Your task to perform on an android device: turn off data saver in the chrome app Image 0: 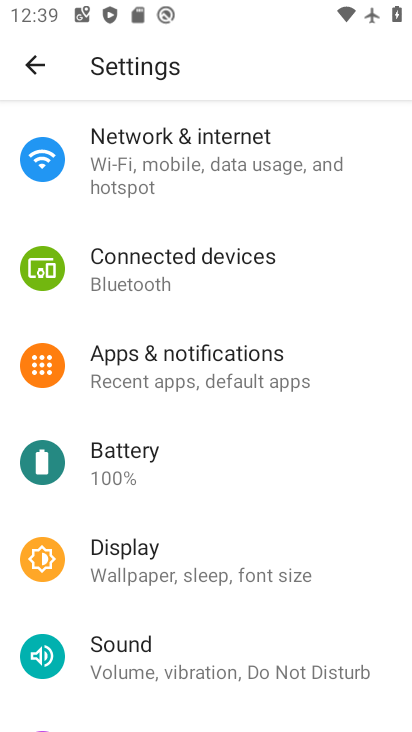
Step 0: press home button
Your task to perform on an android device: turn off data saver in the chrome app Image 1: 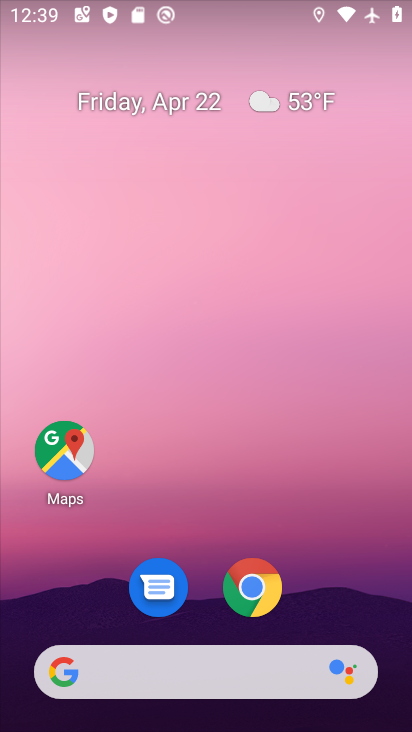
Step 1: drag from (167, 673) to (304, 174)
Your task to perform on an android device: turn off data saver in the chrome app Image 2: 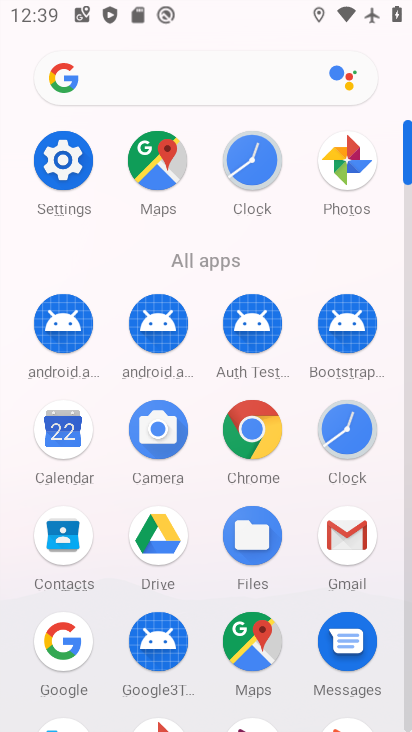
Step 2: click (246, 451)
Your task to perform on an android device: turn off data saver in the chrome app Image 3: 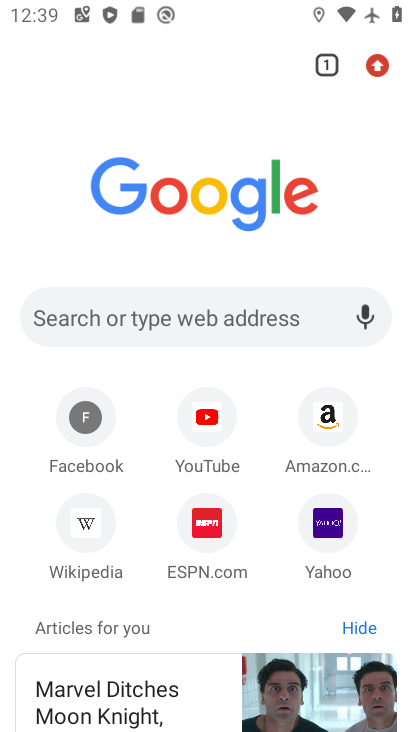
Step 3: click (378, 87)
Your task to perform on an android device: turn off data saver in the chrome app Image 4: 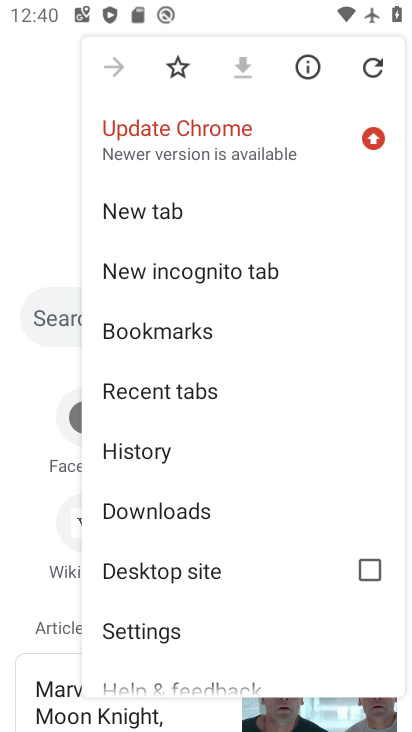
Step 4: drag from (239, 568) to (355, 294)
Your task to perform on an android device: turn off data saver in the chrome app Image 5: 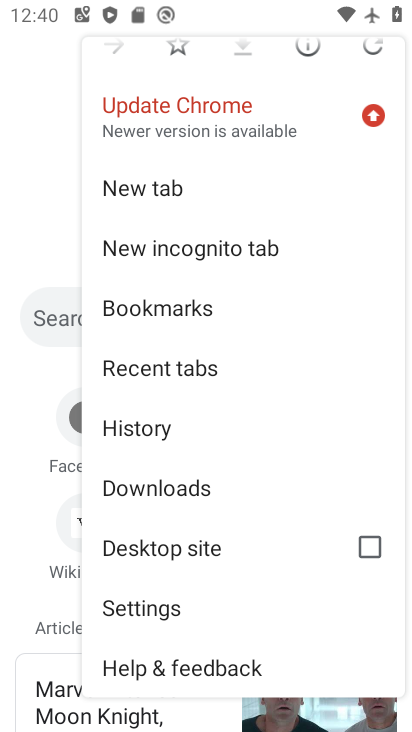
Step 5: click (169, 610)
Your task to perform on an android device: turn off data saver in the chrome app Image 6: 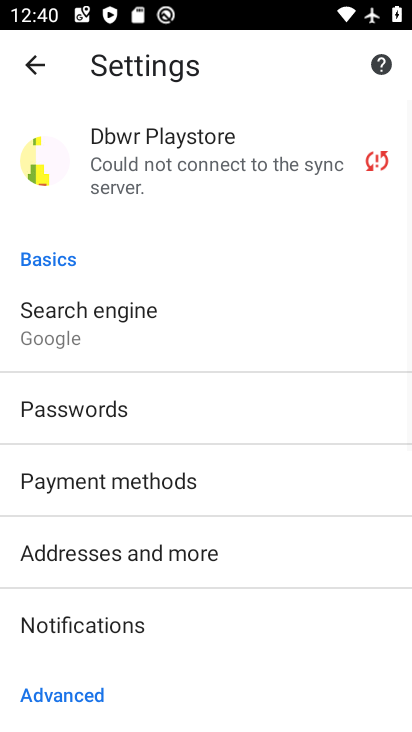
Step 6: drag from (162, 584) to (339, 144)
Your task to perform on an android device: turn off data saver in the chrome app Image 7: 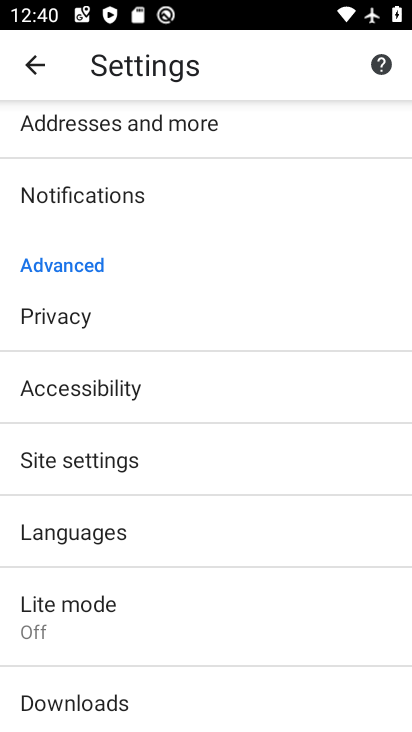
Step 7: click (53, 611)
Your task to perform on an android device: turn off data saver in the chrome app Image 8: 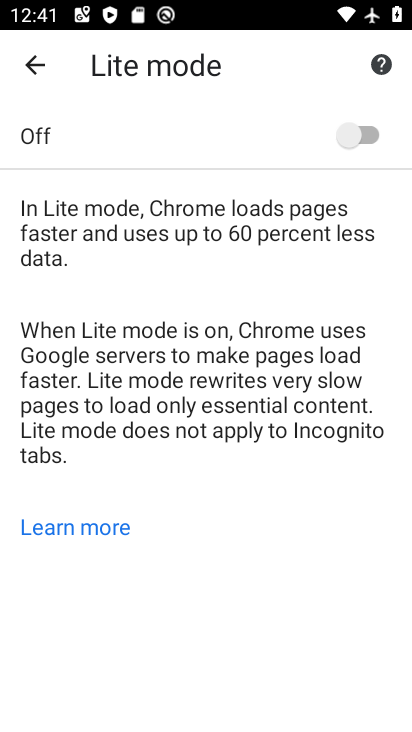
Step 8: task complete